Your task to perform on an android device: toggle improve location accuracy Image 0: 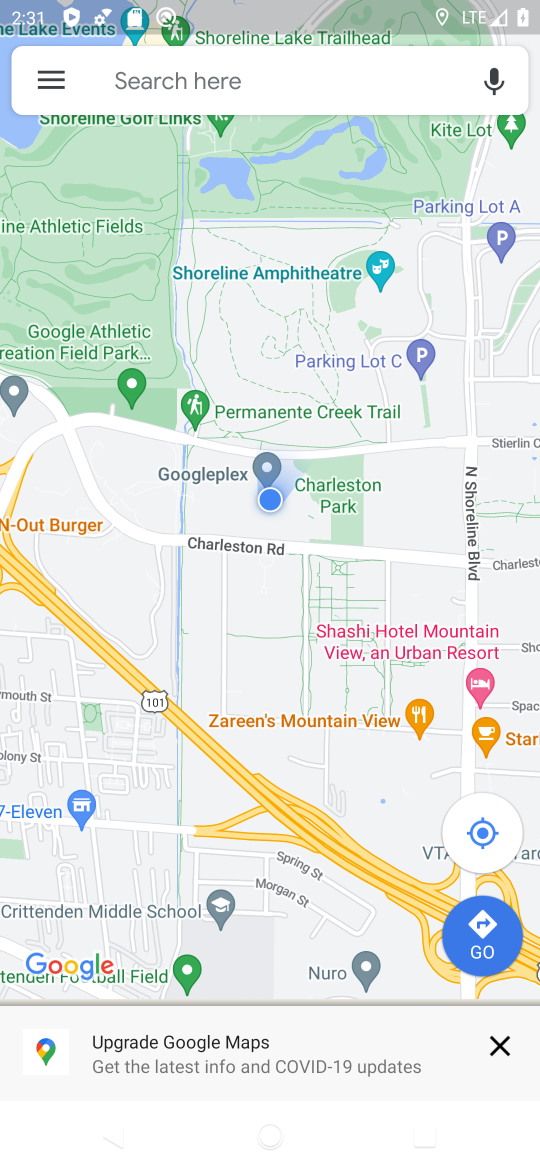
Step 0: press home button
Your task to perform on an android device: toggle improve location accuracy Image 1: 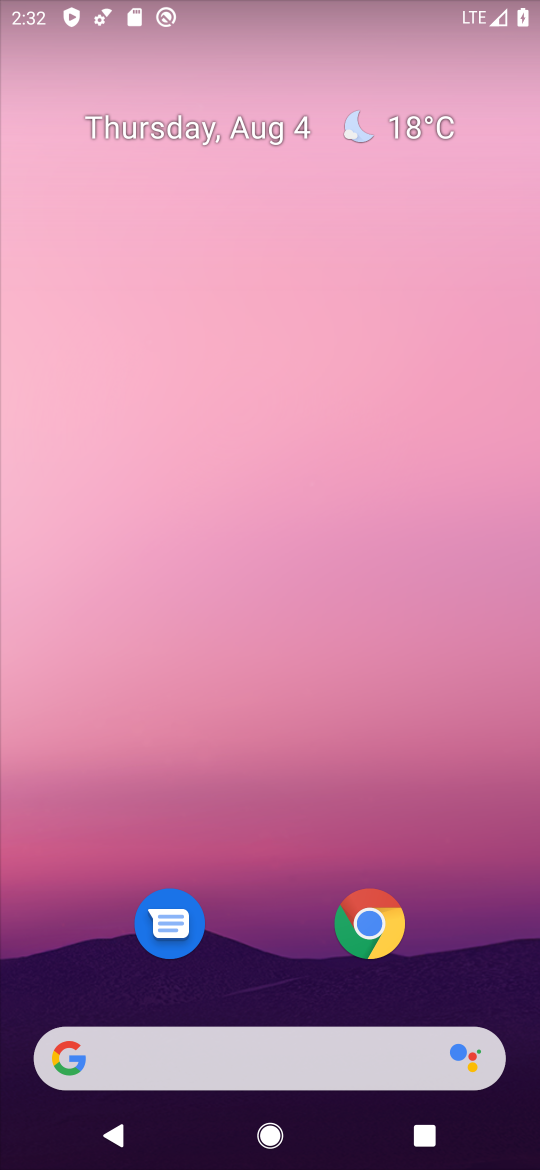
Step 1: drag from (439, 936) to (515, 199)
Your task to perform on an android device: toggle improve location accuracy Image 2: 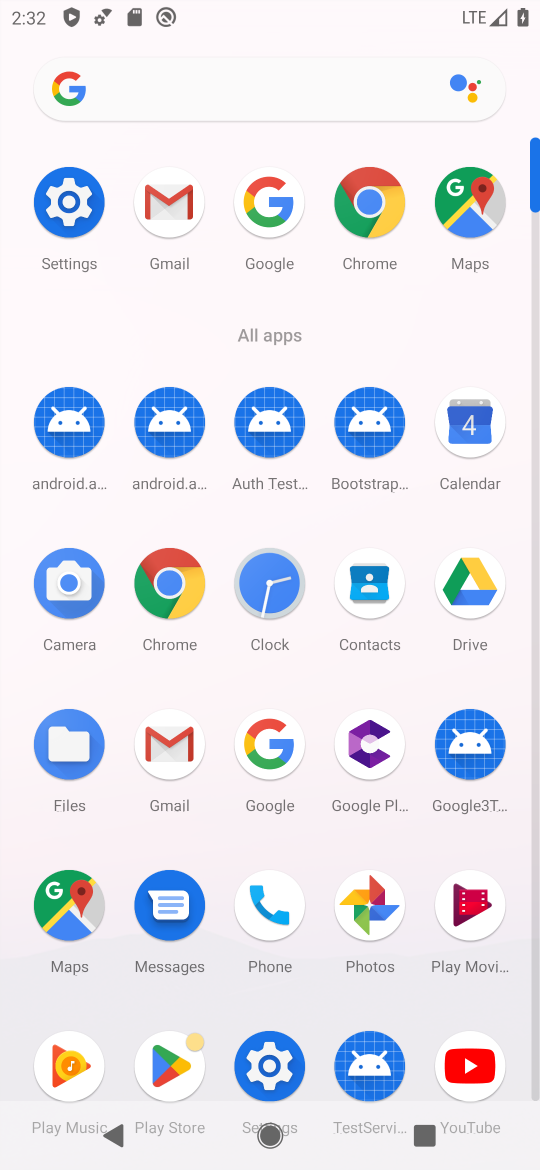
Step 2: click (51, 201)
Your task to perform on an android device: toggle improve location accuracy Image 3: 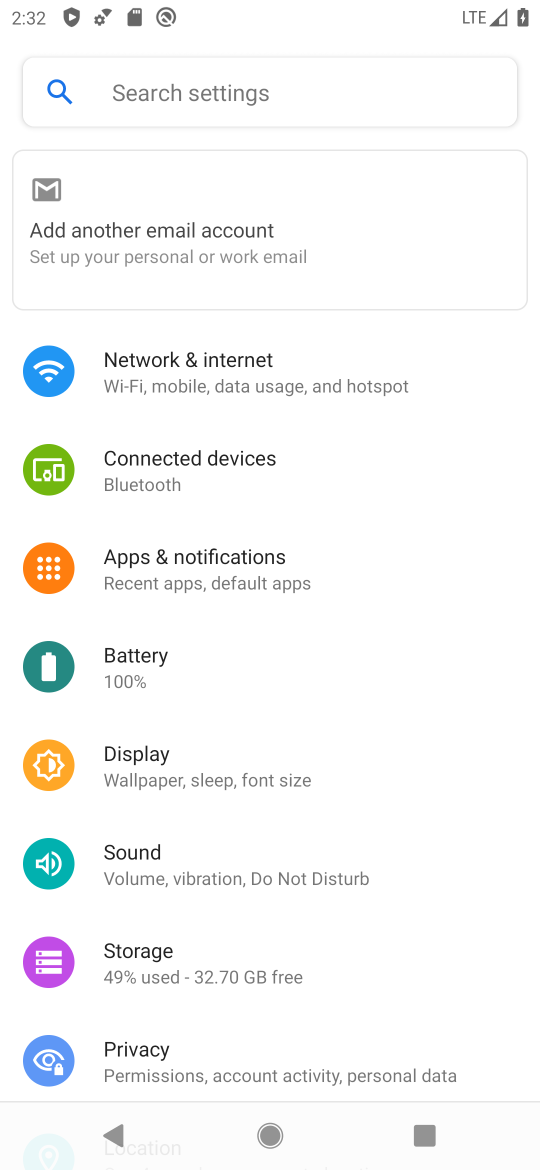
Step 3: drag from (319, 989) to (360, 196)
Your task to perform on an android device: toggle improve location accuracy Image 4: 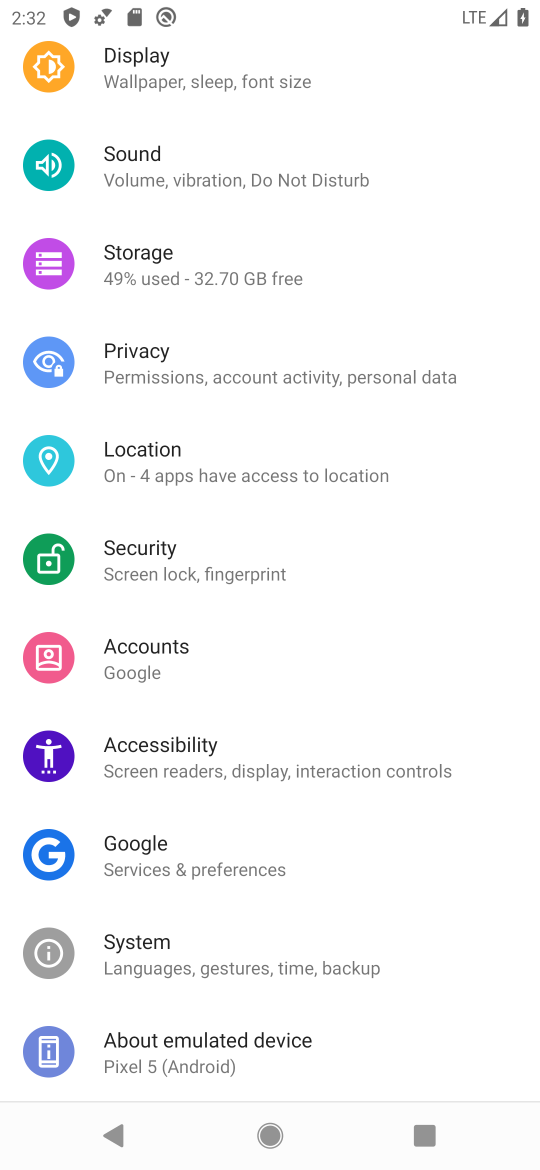
Step 4: click (160, 460)
Your task to perform on an android device: toggle improve location accuracy Image 5: 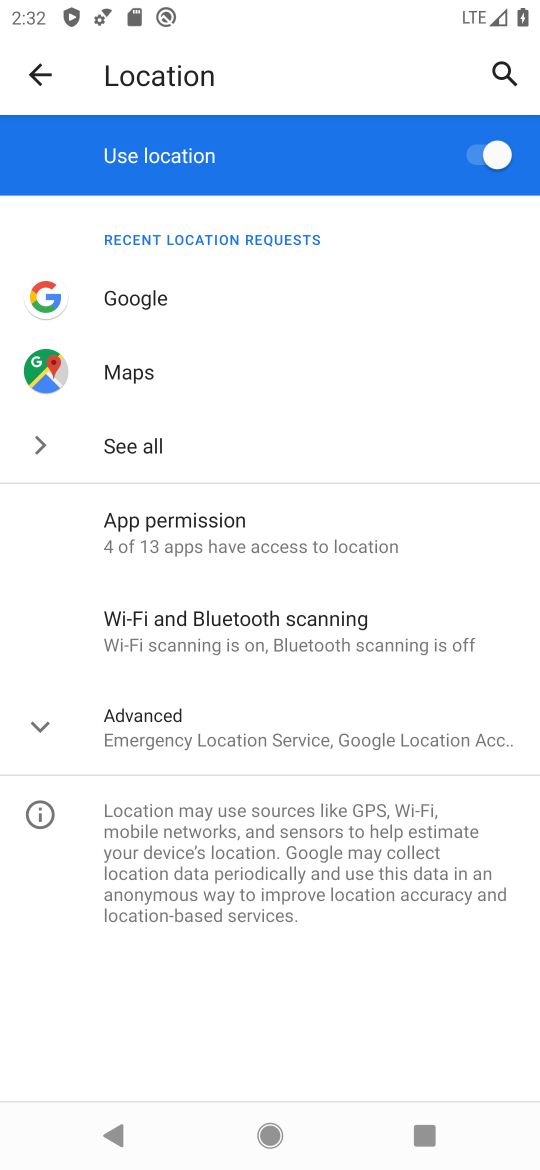
Step 5: click (213, 742)
Your task to perform on an android device: toggle improve location accuracy Image 6: 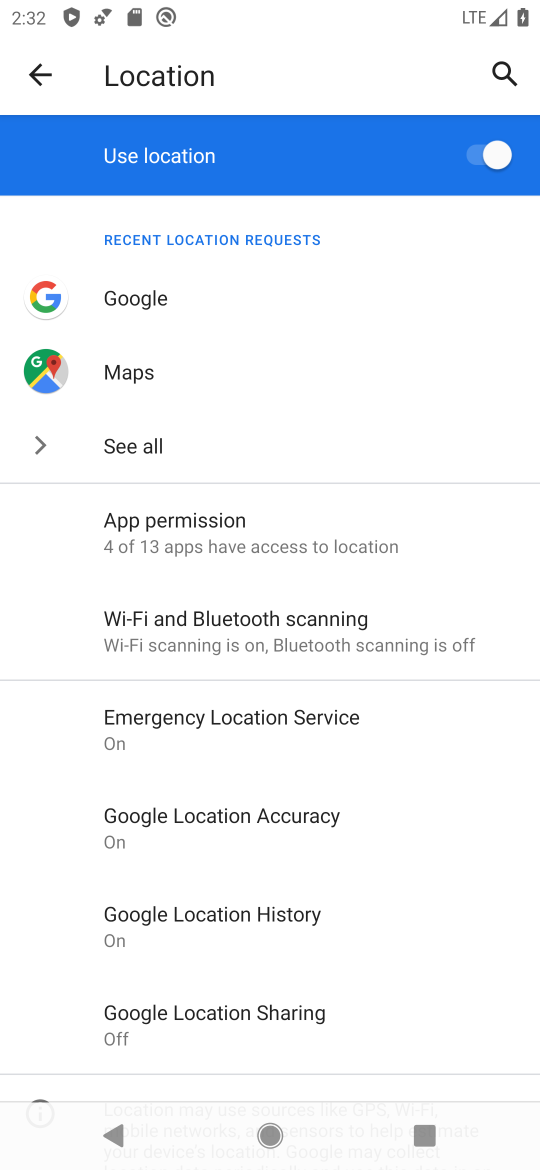
Step 6: click (257, 818)
Your task to perform on an android device: toggle improve location accuracy Image 7: 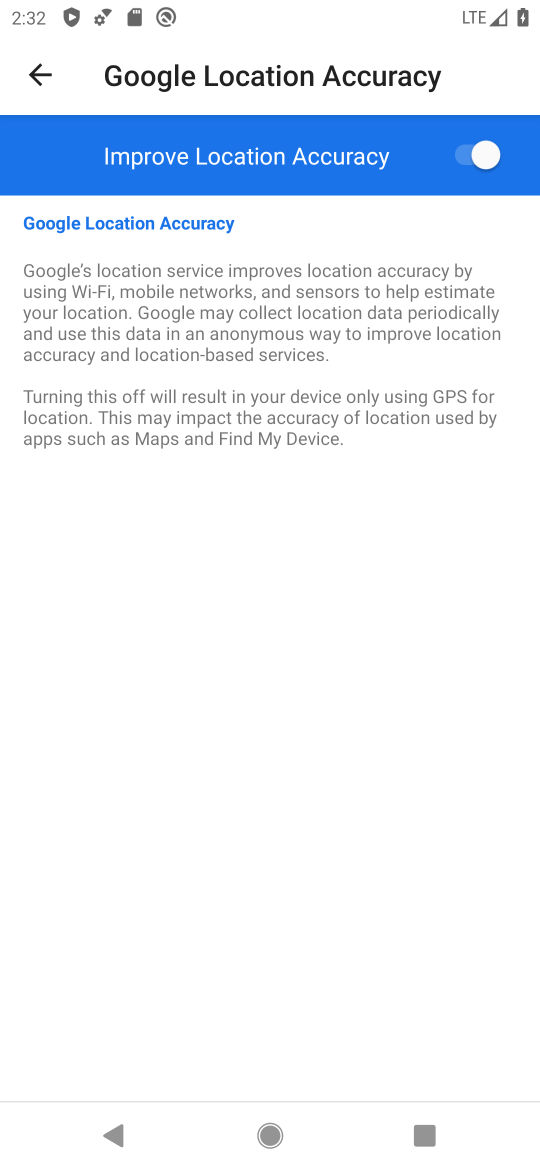
Step 7: click (484, 155)
Your task to perform on an android device: toggle improve location accuracy Image 8: 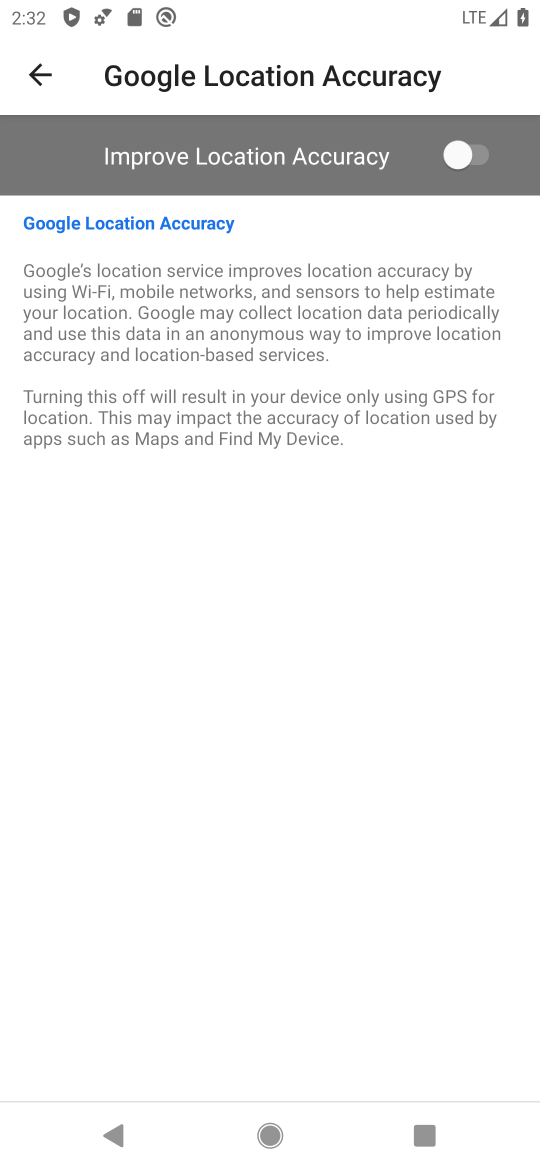
Step 8: task complete